Your task to perform on an android device: Go to location settings Image 0: 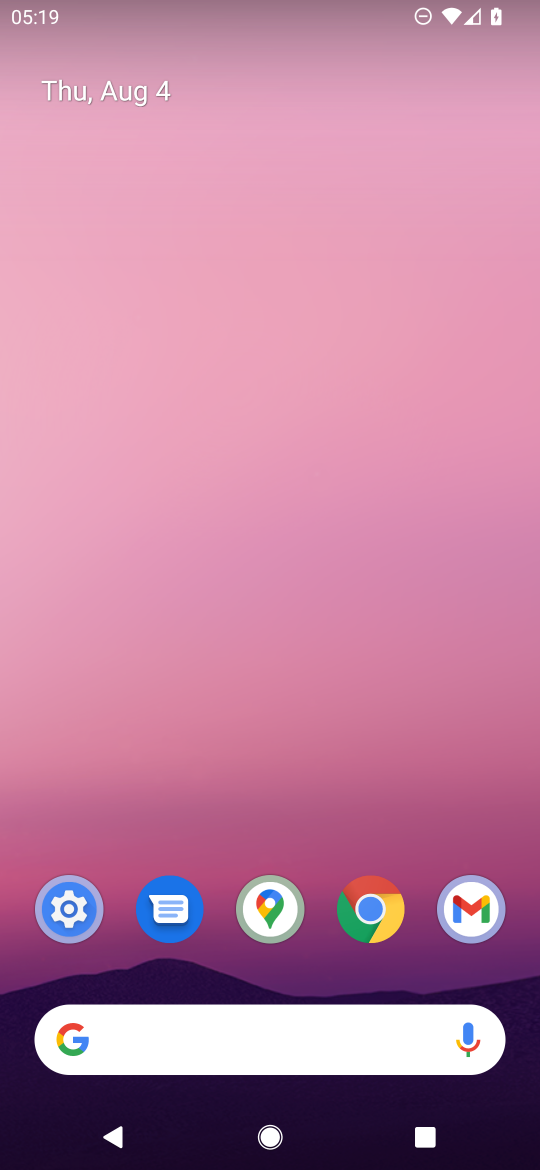
Step 0: press home button
Your task to perform on an android device: Go to location settings Image 1: 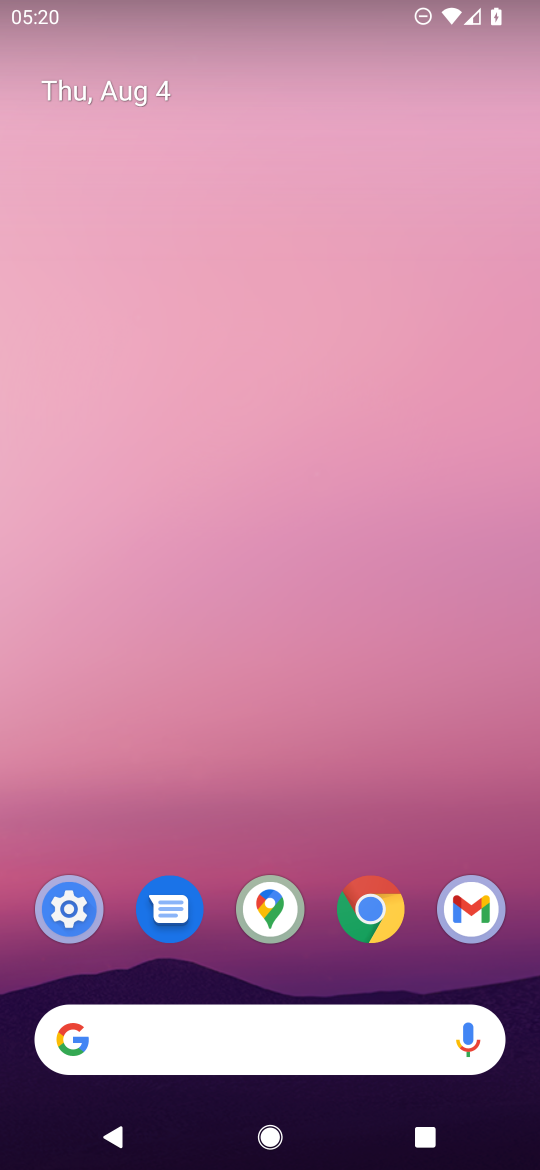
Step 1: drag from (293, 972) to (193, 201)
Your task to perform on an android device: Go to location settings Image 2: 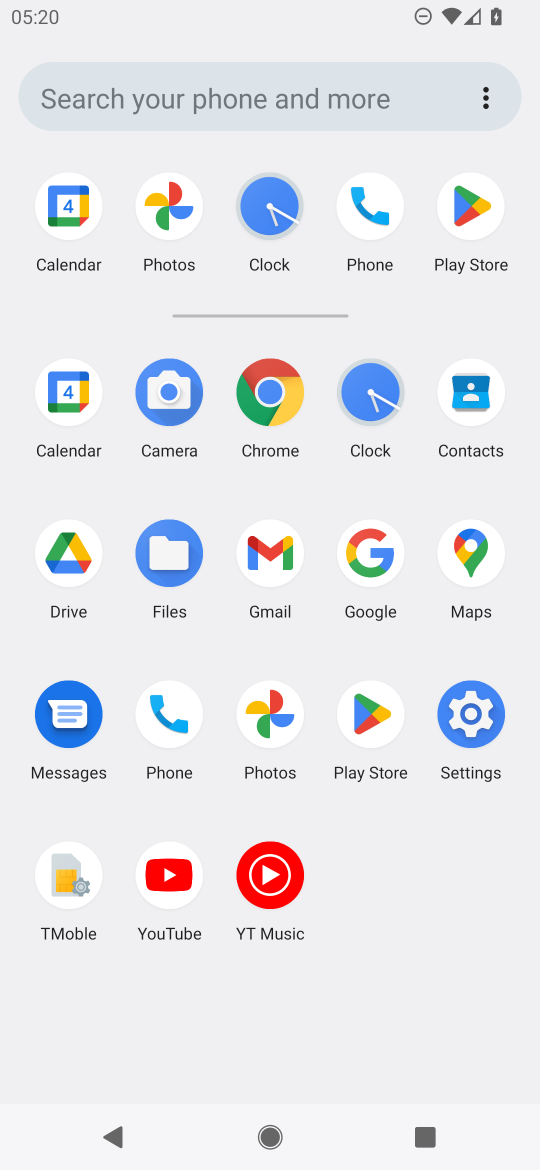
Step 2: click (490, 715)
Your task to perform on an android device: Go to location settings Image 3: 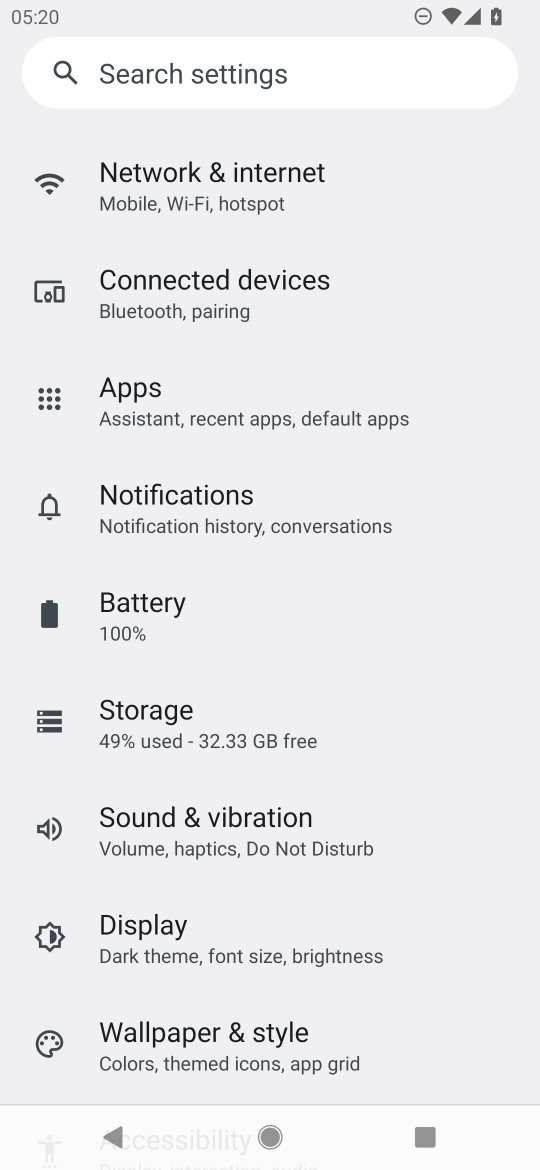
Step 3: drag from (444, 872) to (364, 322)
Your task to perform on an android device: Go to location settings Image 4: 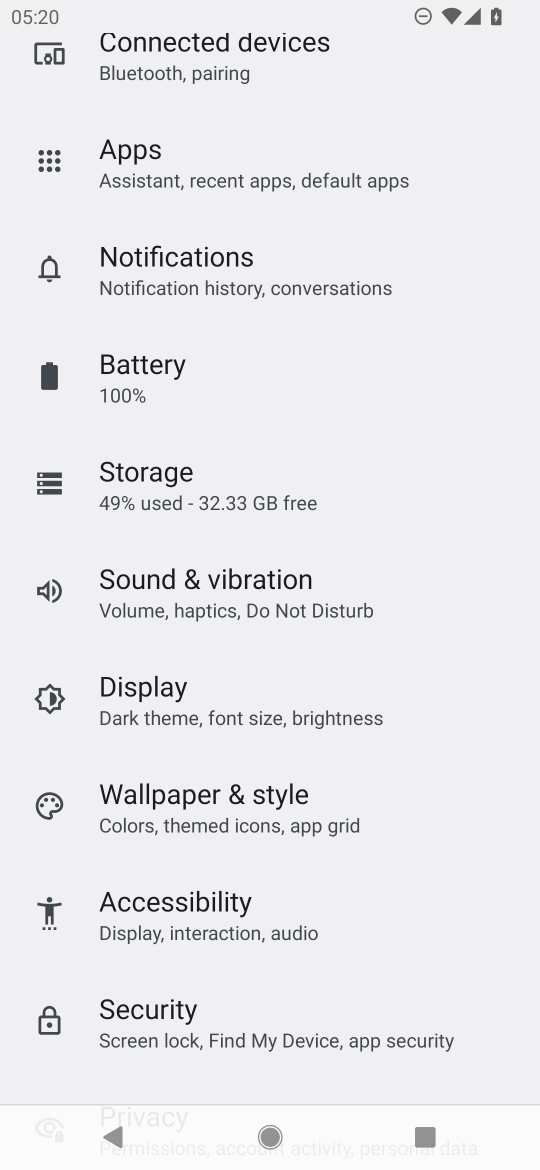
Step 4: drag from (387, 909) to (401, 323)
Your task to perform on an android device: Go to location settings Image 5: 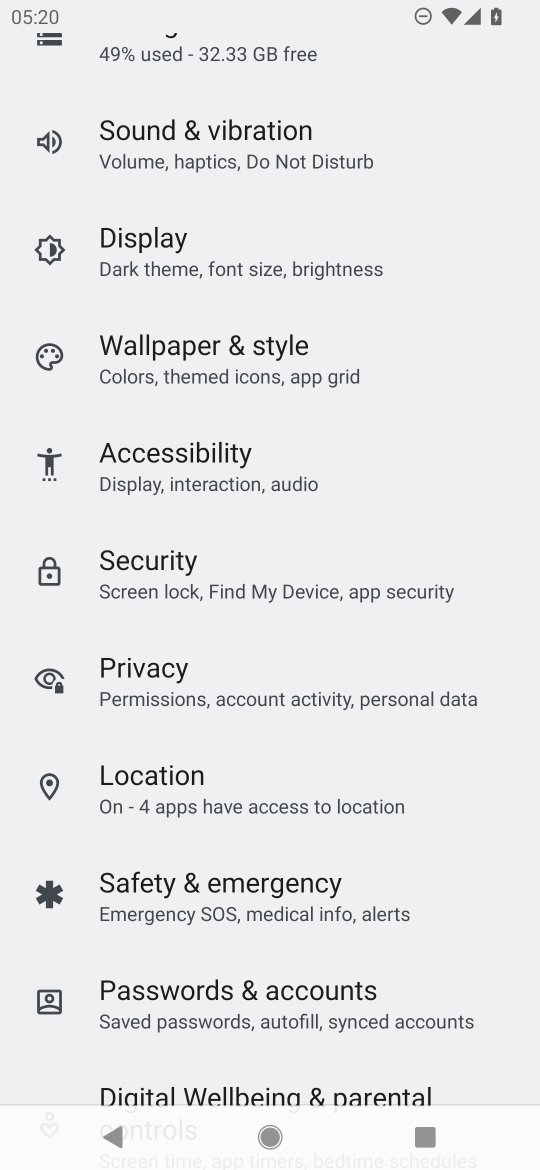
Step 5: click (153, 771)
Your task to perform on an android device: Go to location settings Image 6: 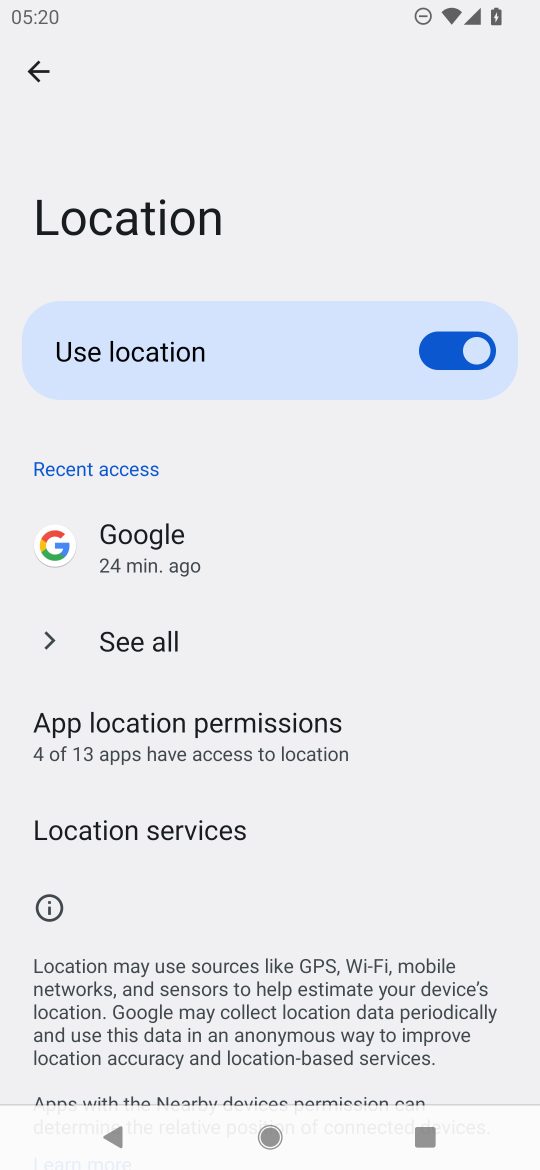
Step 6: task complete